Your task to perform on an android device: turn off airplane mode Image 0: 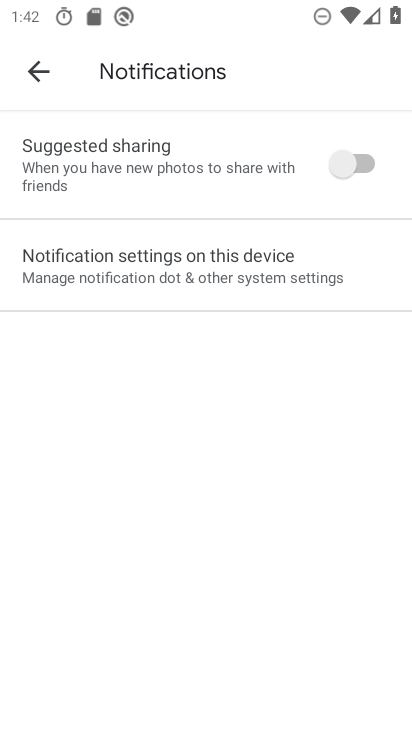
Step 0: press home button
Your task to perform on an android device: turn off airplane mode Image 1: 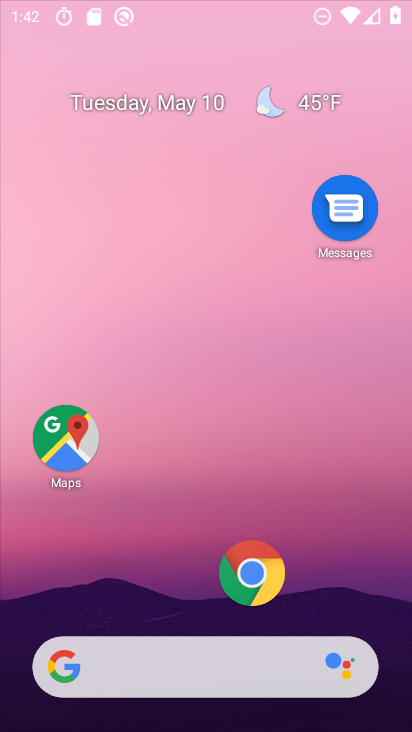
Step 1: drag from (153, 624) to (223, 86)
Your task to perform on an android device: turn off airplane mode Image 2: 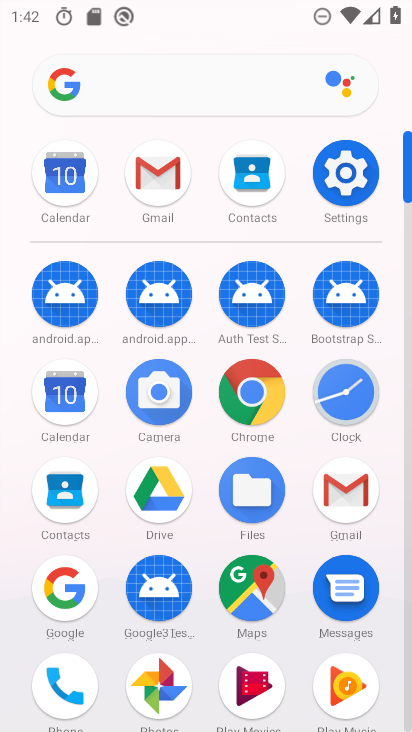
Step 2: click (375, 171)
Your task to perform on an android device: turn off airplane mode Image 3: 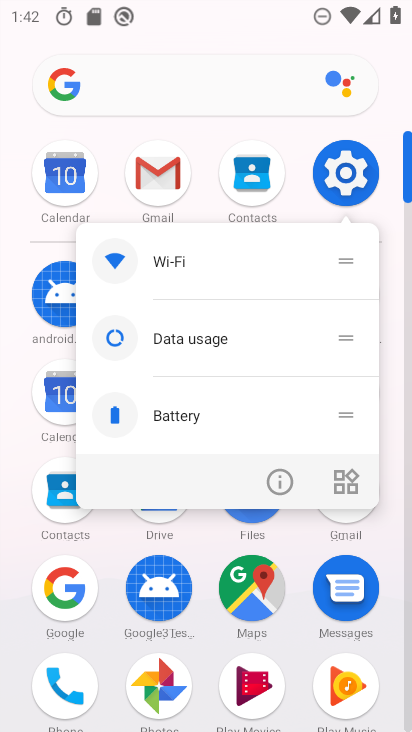
Step 3: click (276, 475)
Your task to perform on an android device: turn off airplane mode Image 4: 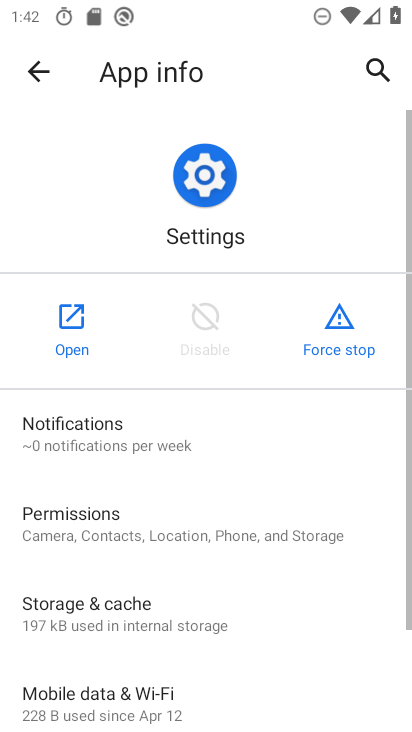
Step 4: click (85, 338)
Your task to perform on an android device: turn off airplane mode Image 5: 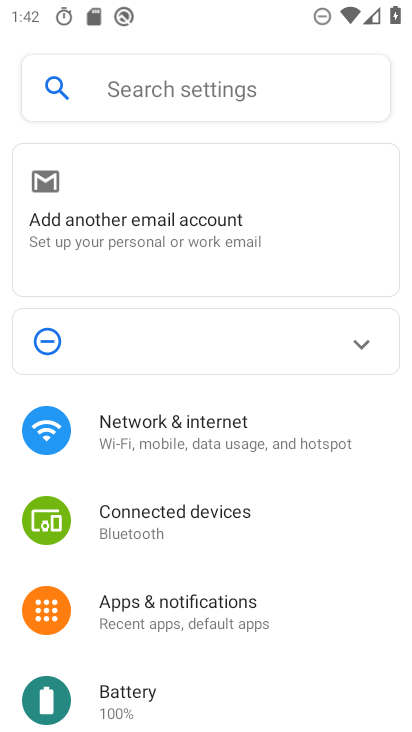
Step 5: drag from (168, 596) to (157, 147)
Your task to perform on an android device: turn off airplane mode Image 6: 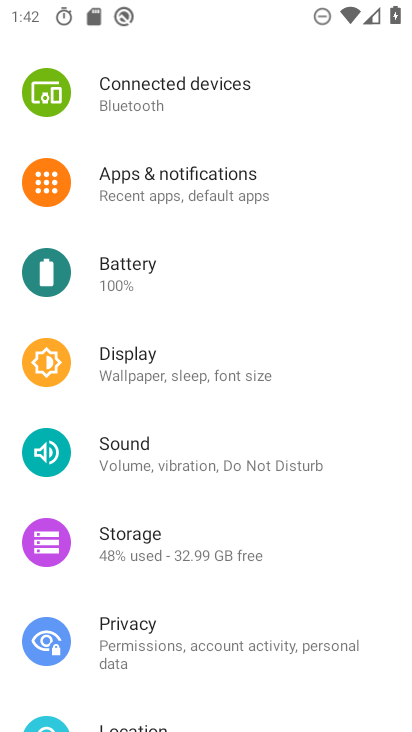
Step 6: drag from (188, 112) to (254, 518)
Your task to perform on an android device: turn off airplane mode Image 7: 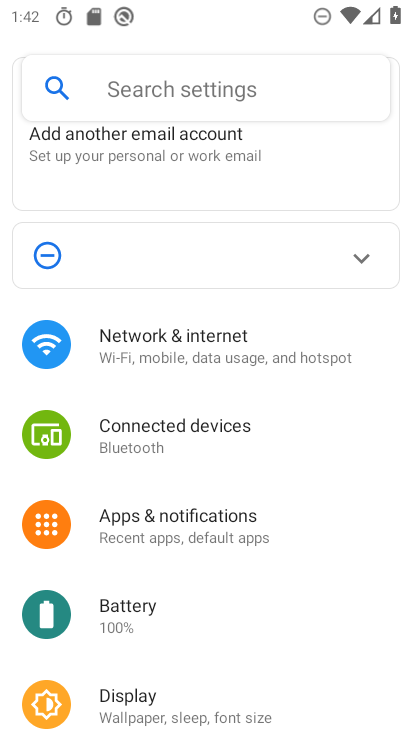
Step 7: click (189, 336)
Your task to perform on an android device: turn off airplane mode Image 8: 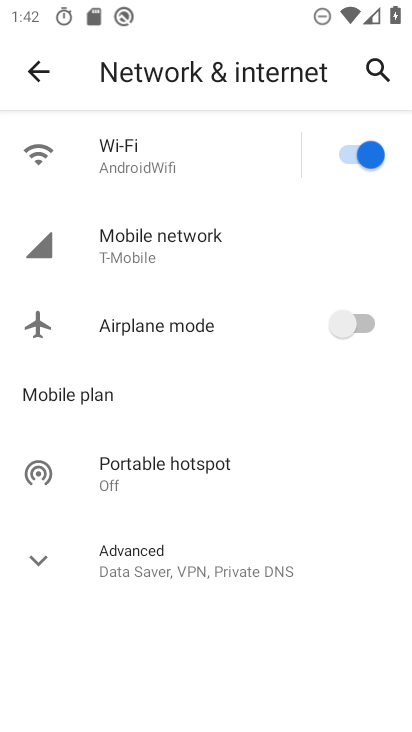
Step 8: task complete